Your task to perform on an android device: Open calendar and show me the first week of next month Image 0: 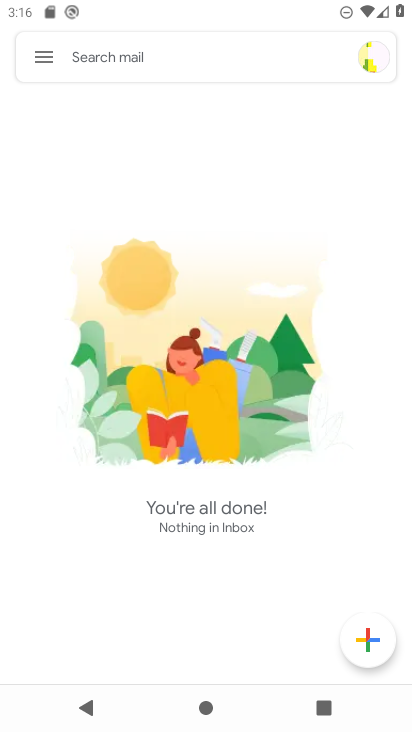
Step 0: press home button
Your task to perform on an android device: Open calendar and show me the first week of next month Image 1: 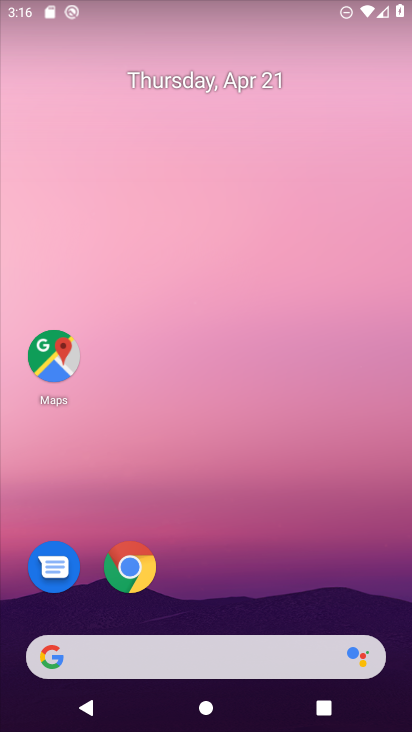
Step 1: drag from (215, 629) to (219, 4)
Your task to perform on an android device: Open calendar and show me the first week of next month Image 2: 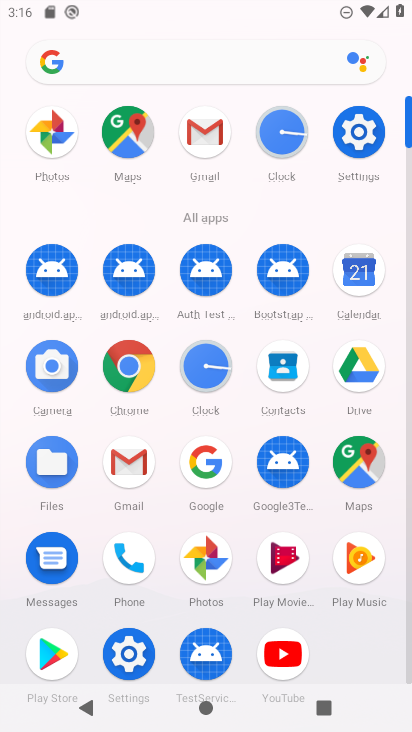
Step 2: click (367, 271)
Your task to perform on an android device: Open calendar and show me the first week of next month Image 3: 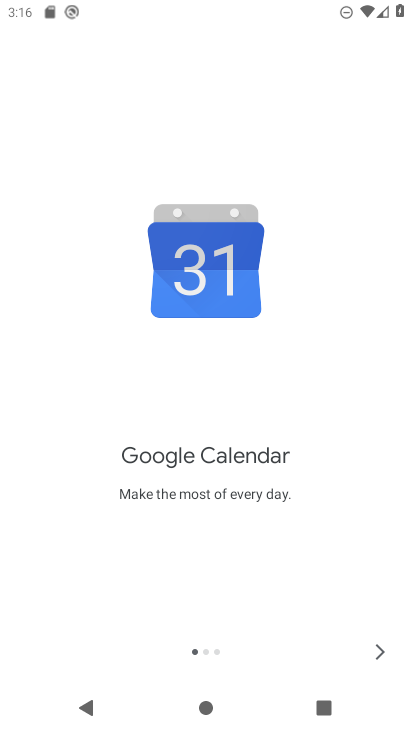
Step 3: click (382, 648)
Your task to perform on an android device: Open calendar and show me the first week of next month Image 4: 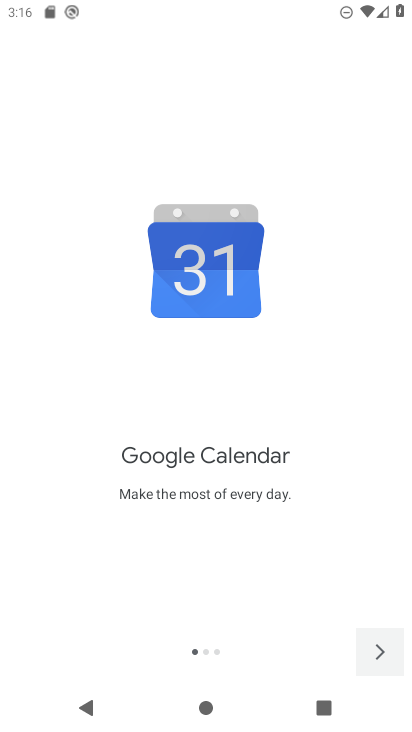
Step 4: click (382, 648)
Your task to perform on an android device: Open calendar and show me the first week of next month Image 5: 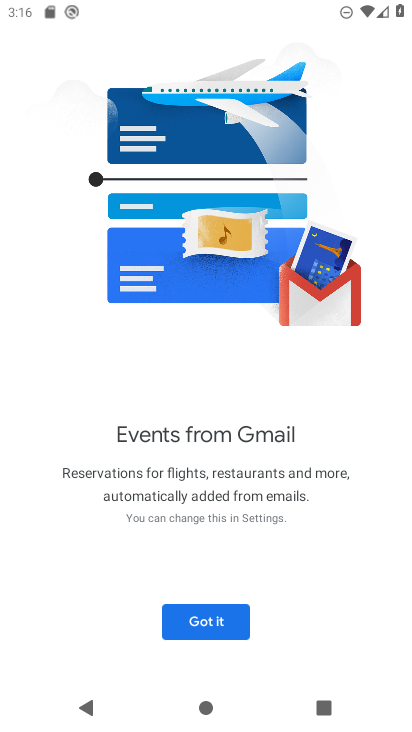
Step 5: click (226, 619)
Your task to perform on an android device: Open calendar and show me the first week of next month Image 6: 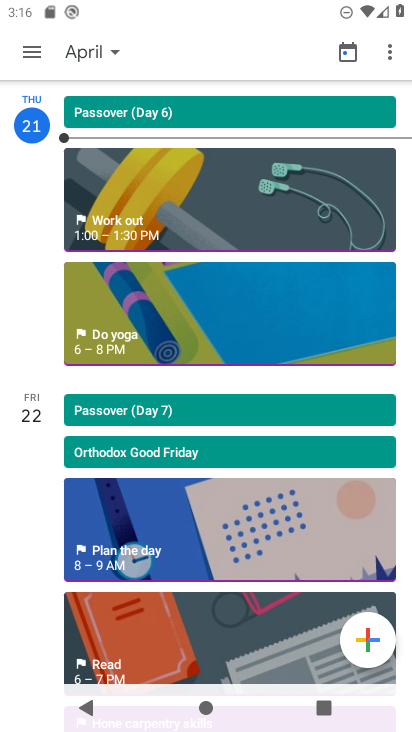
Step 6: click (116, 57)
Your task to perform on an android device: Open calendar and show me the first week of next month Image 7: 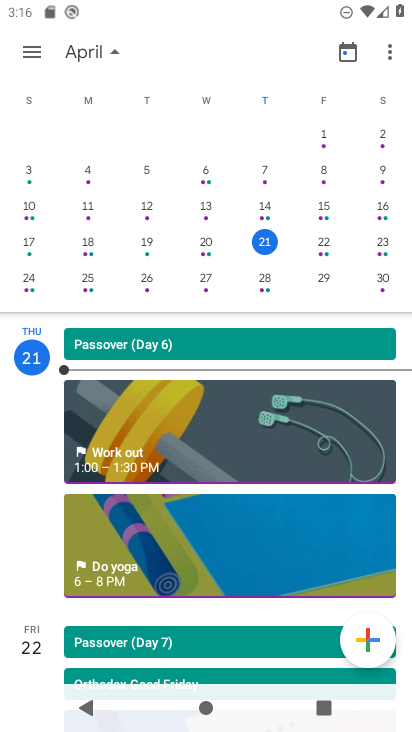
Step 7: drag from (363, 220) to (70, 208)
Your task to perform on an android device: Open calendar and show me the first week of next month Image 8: 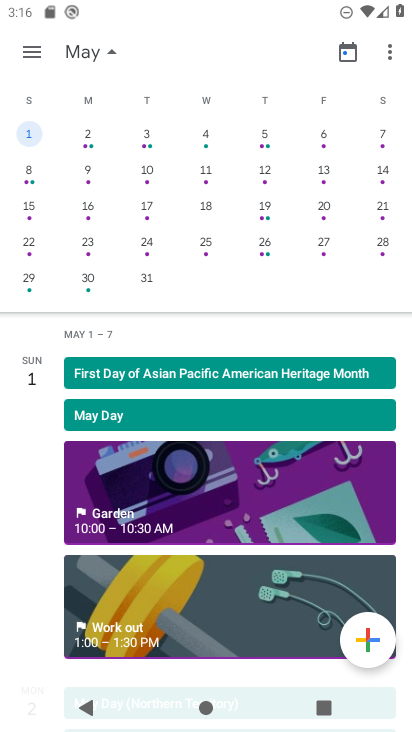
Step 8: click (261, 133)
Your task to perform on an android device: Open calendar and show me the first week of next month Image 9: 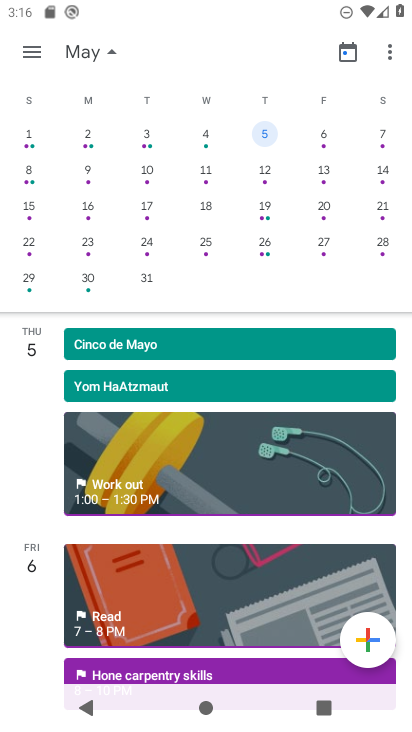
Step 9: task complete